Your task to perform on an android device: Open the web browser Image 0: 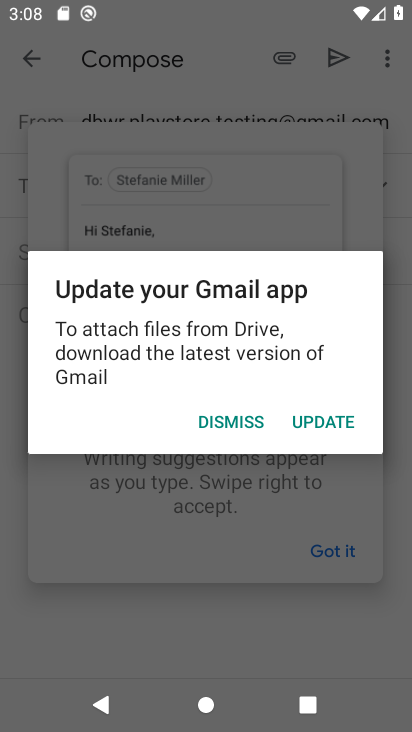
Step 0: press home button
Your task to perform on an android device: Open the web browser Image 1: 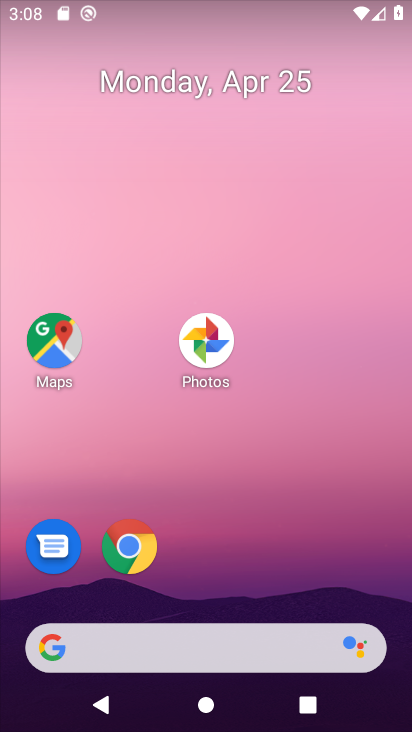
Step 1: drag from (300, 504) to (330, 255)
Your task to perform on an android device: Open the web browser Image 2: 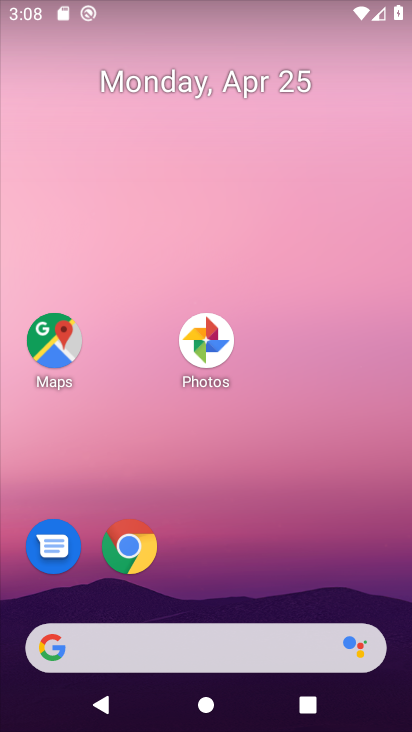
Step 2: click (135, 534)
Your task to perform on an android device: Open the web browser Image 3: 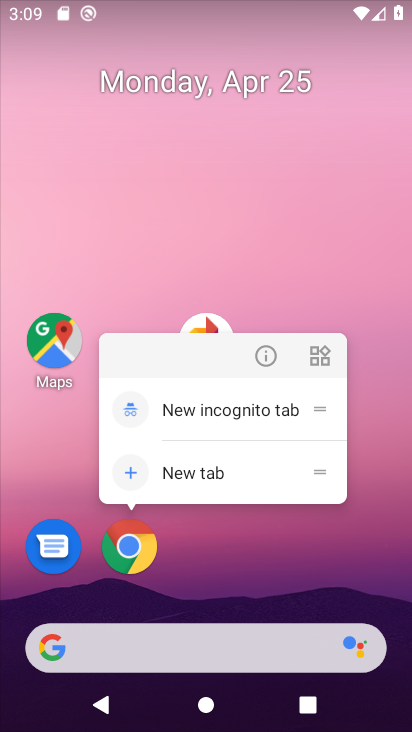
Step 3: click (135, 534)
Your task to perform on an android device: Open the web browser Image 4: 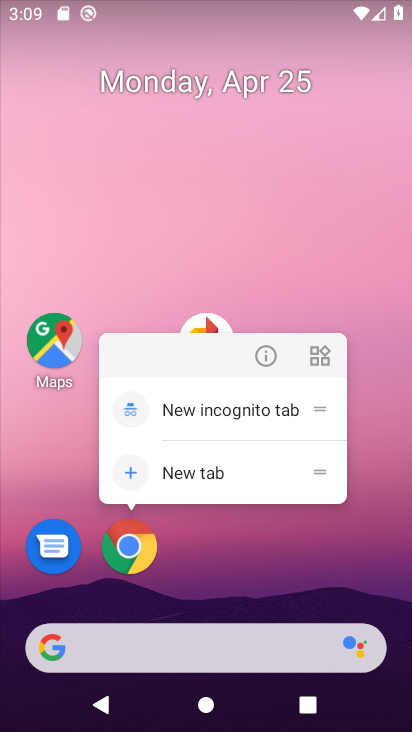
Step 4: click (135, 534)
Your task to perform on an android device: Open the web browser Image 5: 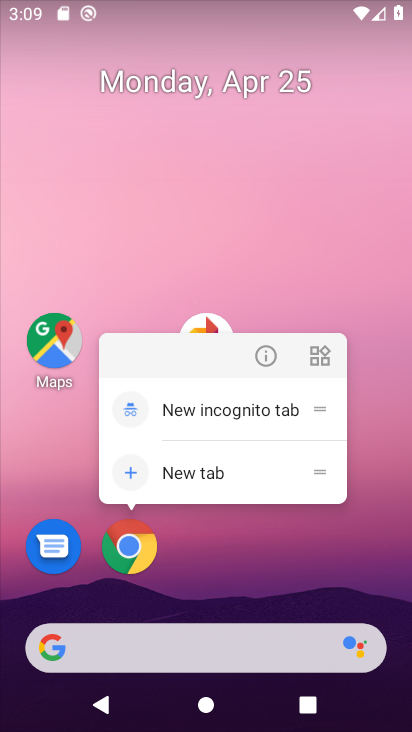
Step 5: click (135, 534)
Your task to perform on an android device: Open the web browser Image 6: 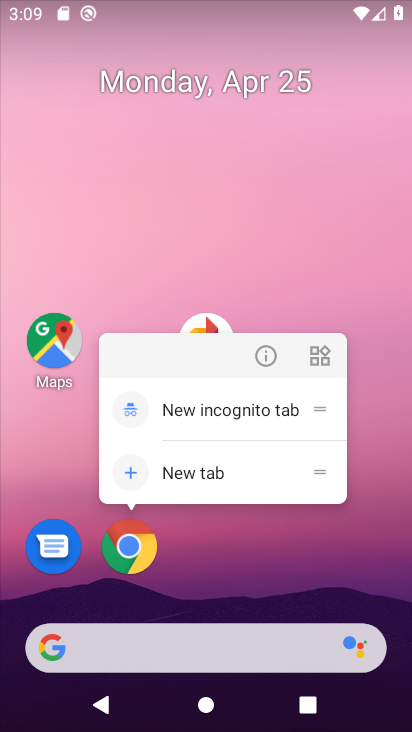
Step 6: click (316, 560)
Your task to perform on an android device: Open the web browser Image 7: 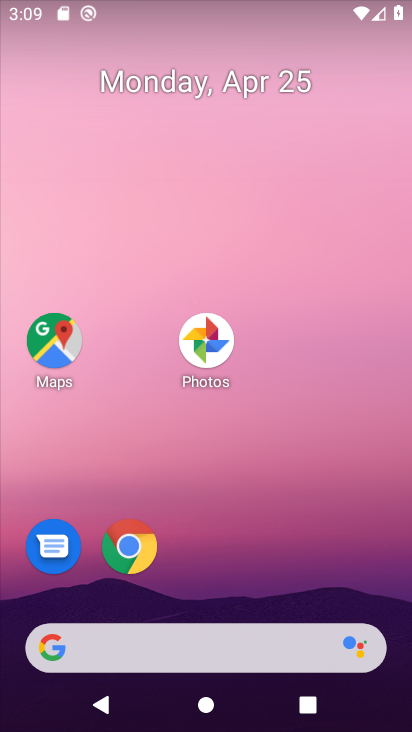
Step 7: drag from (317, 557) to (316, 107)
Your task to perform on an android device: Open the web browser Image 8: 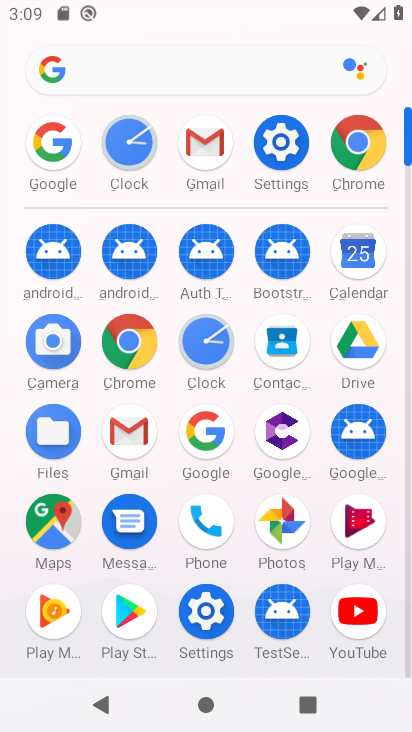
Step 8: click (116, 332)
Your task to perform on an android device: Open the web browser Image 9: 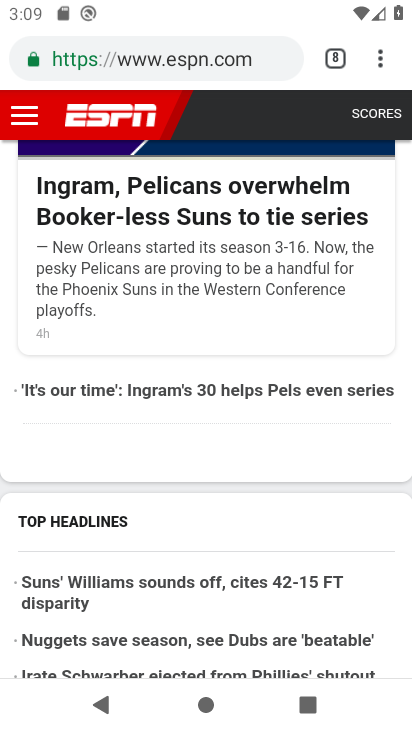
Step 9: task complete